Your task to perform on an android device: manage bookmarks in the chrome app Image 0: 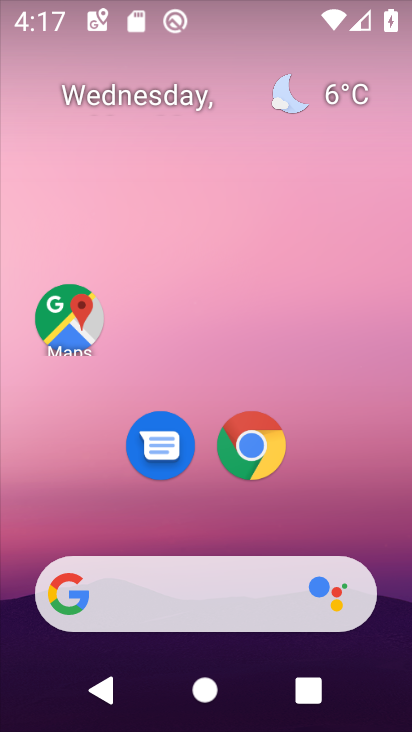
Step 0: click (242, 462)
Your task to perform on an android device: manage bookmarks in the chrome app Image 1: 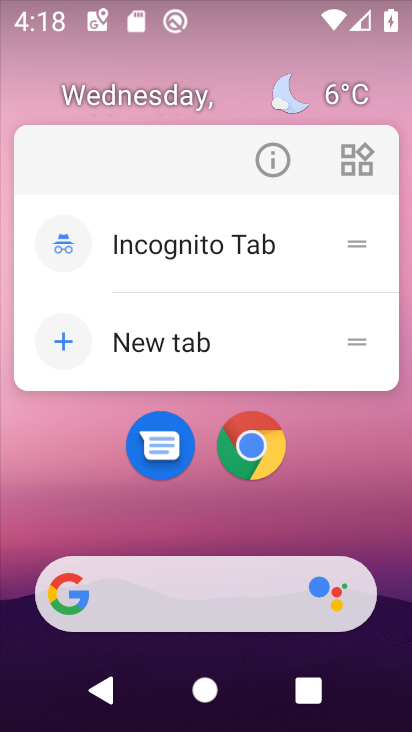
Step 1: click (263, 430)
Your task to perform on an android device: manage bookmarks in the chrome app Image 2: 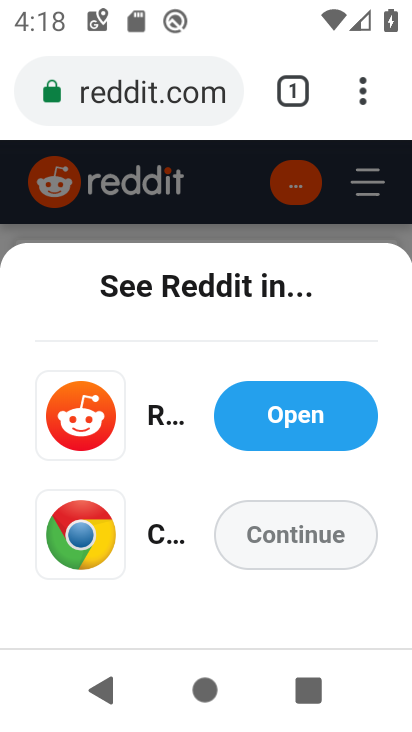
Step 2: click (360, 98)
Your task to perform on an android device: manage bookmarks in the chrome app Image 3: 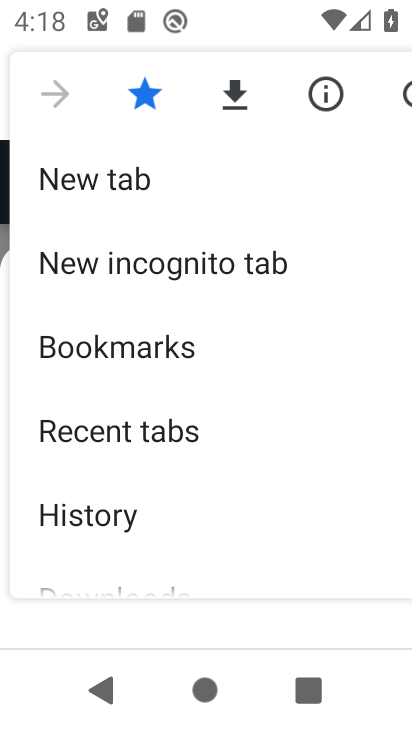
Step 3: click (155, 350)
Your task to perform on an android device: manage bookmarks in the chrome app Image 4: 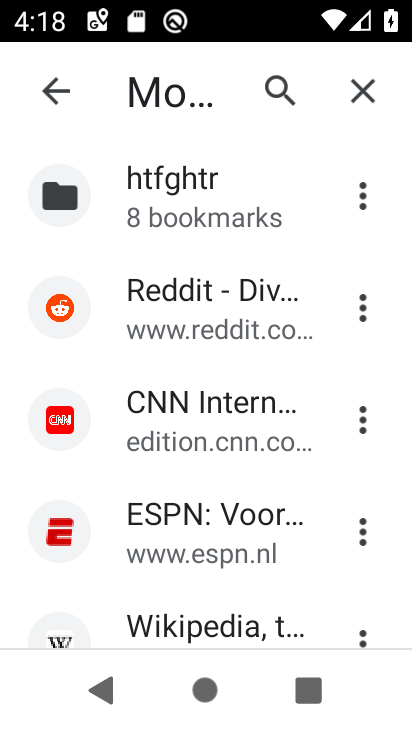
Step 4: click (363, 299)
Your task to perform on an android device: manage bookmarks in the chrome app Image 5: 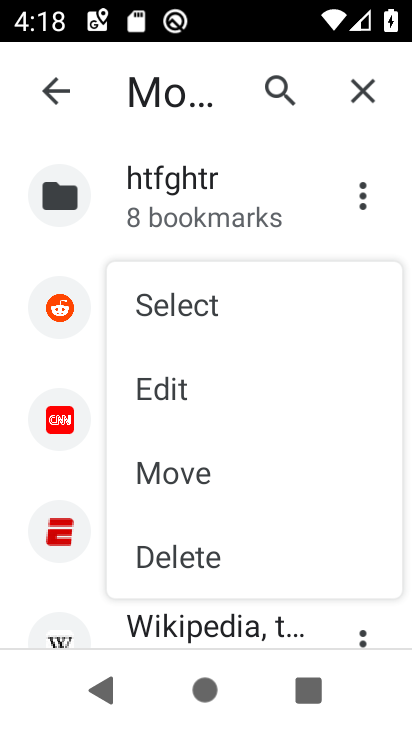
Step 5: click (208, 312)
Your task to perform on an android device: manage bookmarks in the chrome app Image 6: 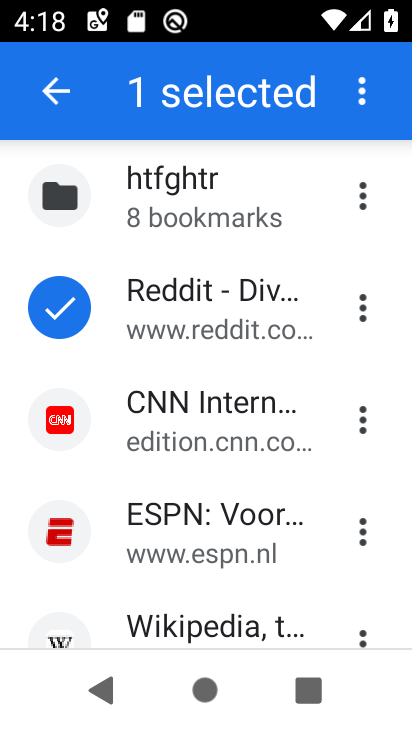
Step 6: click (138, 441)
Your task to perform on an android device: manage bookmarks in the chrome app Image 7: 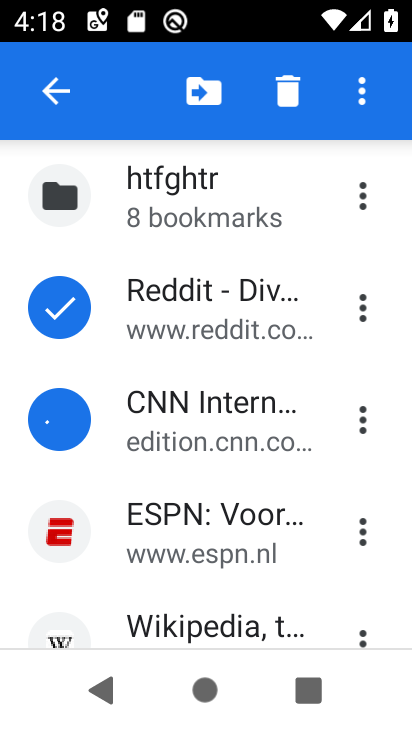
Step 7: click (150, 525)
Your task to perform on an android device: manage bookmarks in the chrome app Image 8: 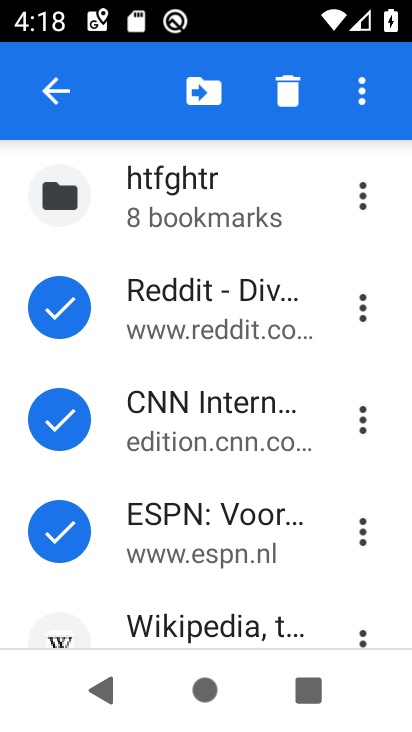
Step 8: click (164, 622)
Your task to perform on an android device: manage bookmarks in the chrome app Image 9: 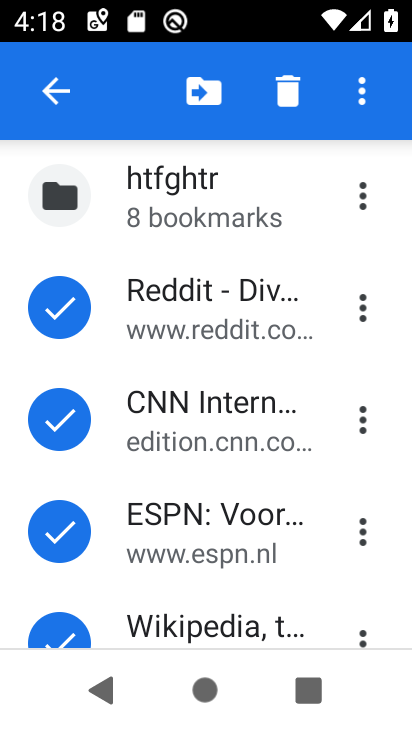
Step 9: click (198, 97)
Your task to perform on an android device: manage bookmarks in the chrome app Image 10: 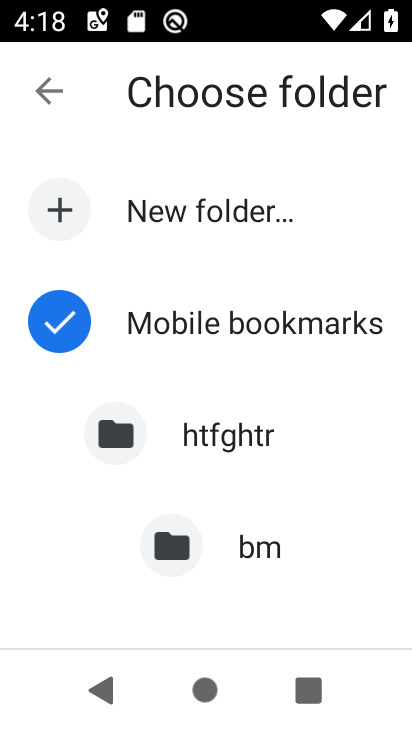
Step 10: click (233, 446)
Your task to perform on an android device: manage bookmarks in the chrome app Image 11: 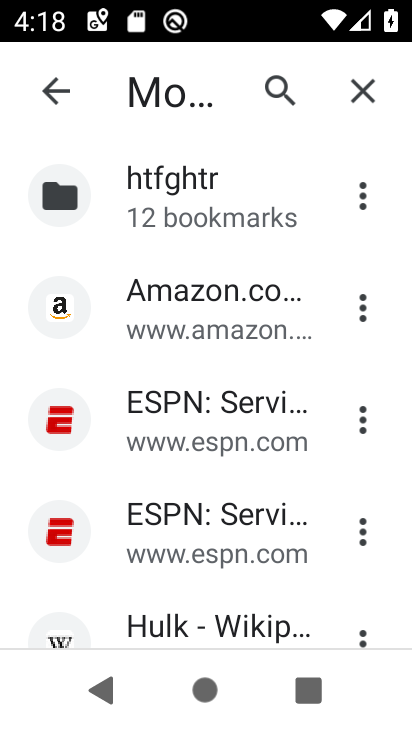
Step 11: task complete